Your task to perform on an android device: Open display settings Image 0: 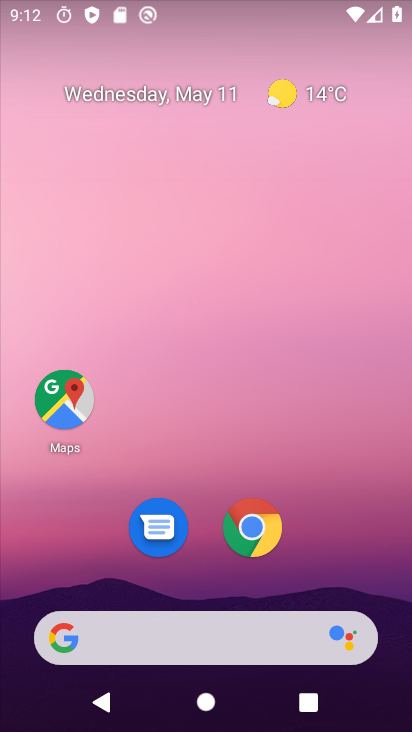
Step 0: drag from (187, 638) to (242, 99)
Your task to perform on an android device: Open display settings Image 1: 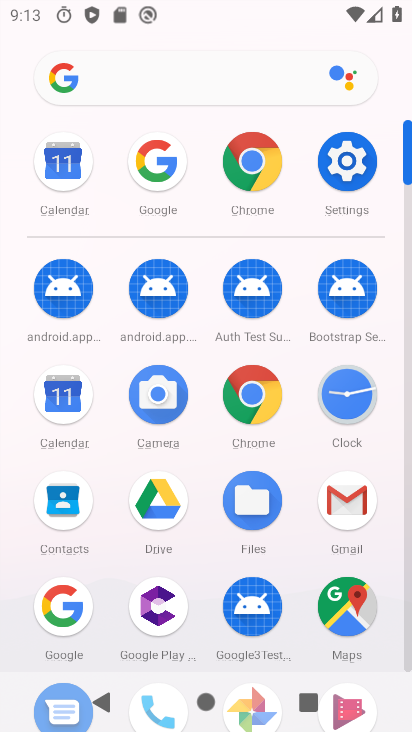
Step 1: drag from (268, 526) to (268, 163)
Your task to perform on an android device: Open display settings Image 2: 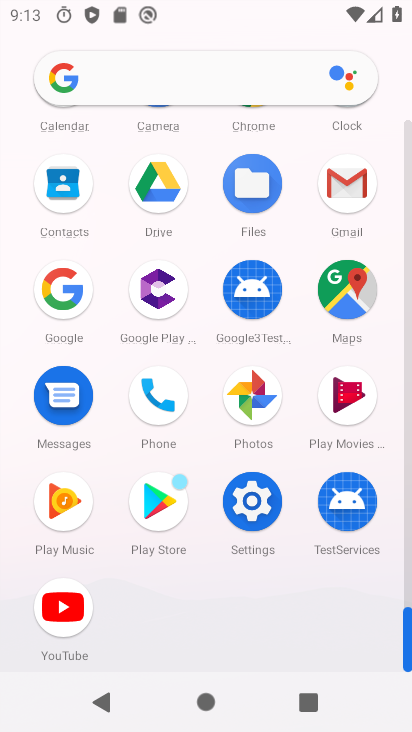
Step 2: click (251, 514)
Your task to perform on an android device: Open display settings Image 3: 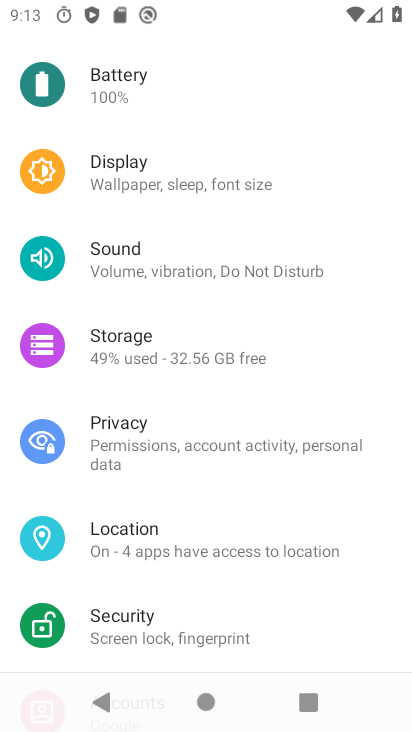
Step 3: drag from (191, 531) to (200, 310)
Your task to perform on an android device: Open display settings Image 4: 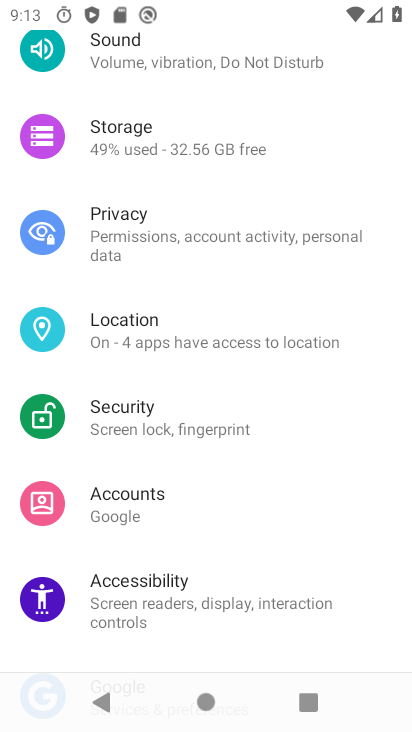
Step 4: drag from (221, 226) to (199, 556)
Your task to perform on an android device: Open display settings Image 5: 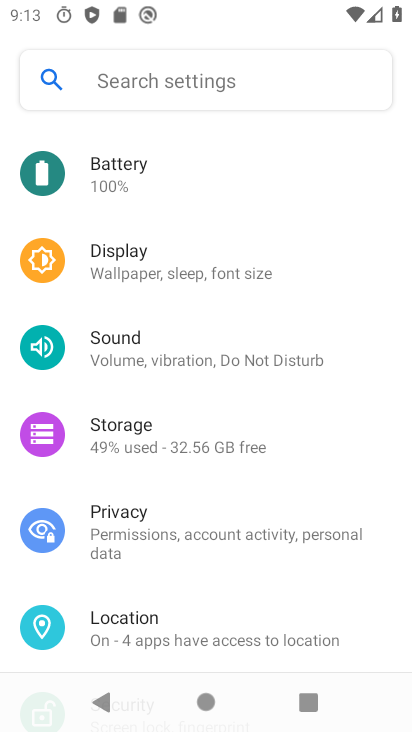
Step 5: click (205, 281)
Your task to perform on an android device: Open display settings Image 6: 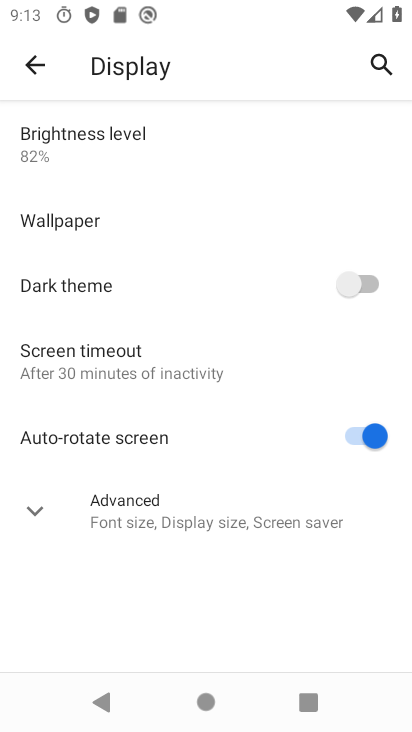
Step 6: click (163, 521)
Your task to perform on an android device: Open display settings Image 7: 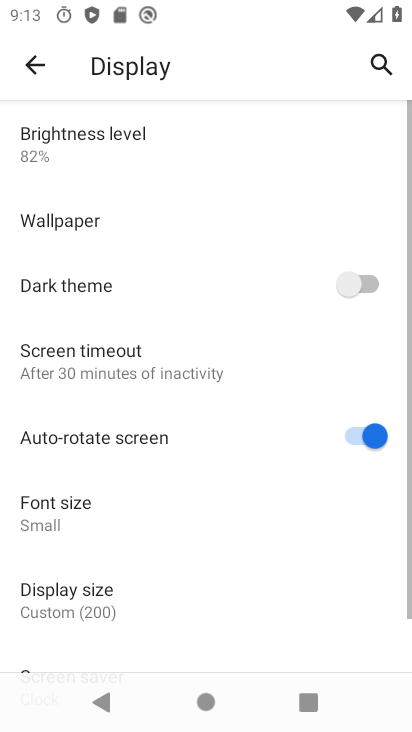
Step 7: task complete